Your task to perform on an android device: Go to CNN.com Image 0: 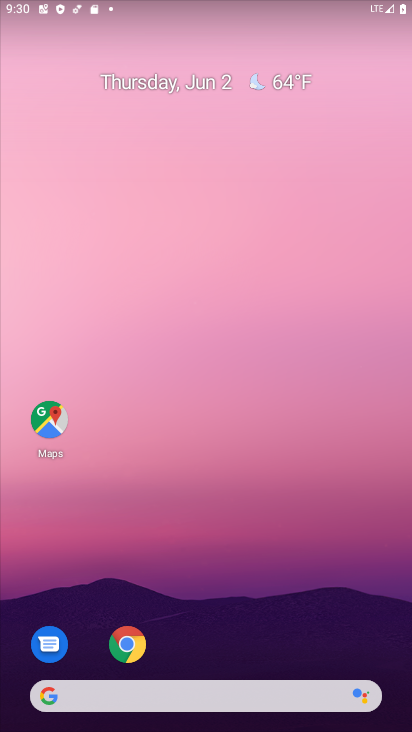
Step 0: press home button
Your task to perform on an android device: Go to CNN.com Image 1: 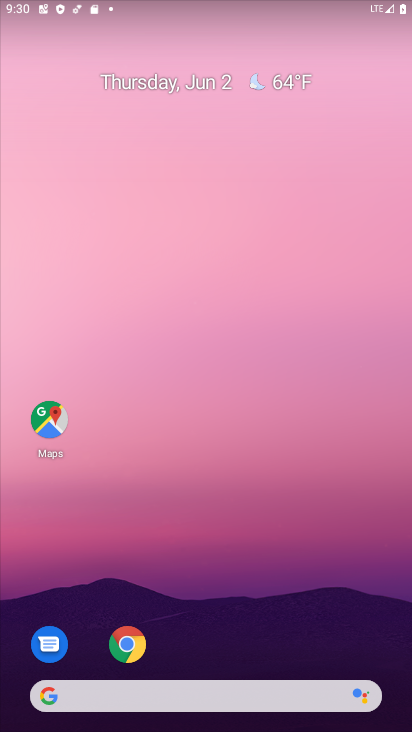
Step 1: drag from (383, 719) to (3, 712)
Your task to perform on an android device: Go to CNN.com Image 2: 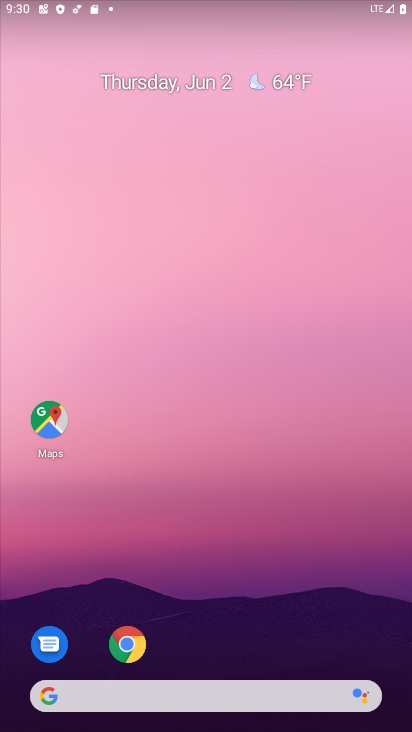
Step 2: click (133, 651)
Your task to perform on an android device: Go to CNN.com Image 3: 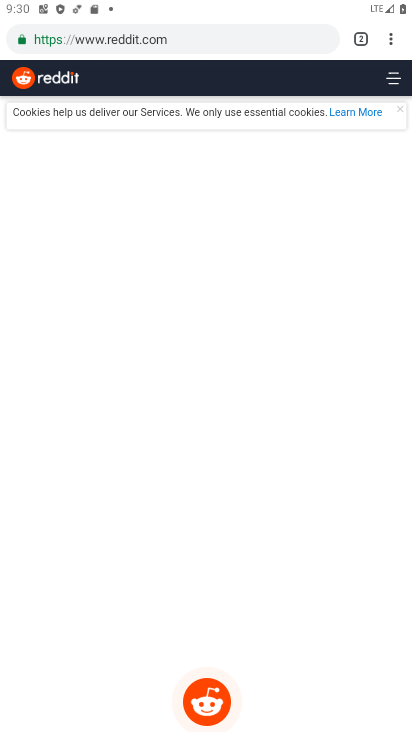
Step 3: click (200, 40)
Your task to perform on an android device: Go to CNN.com Image 4: 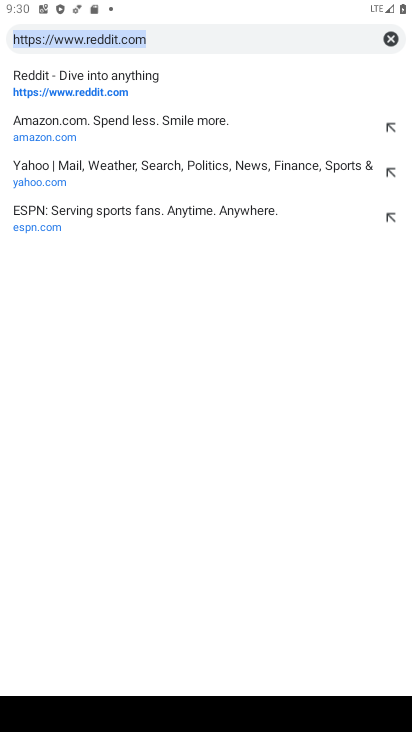
Step 4: type " CNN.com"
Your task to perform on an android device: Go to CNN.com Image 5: 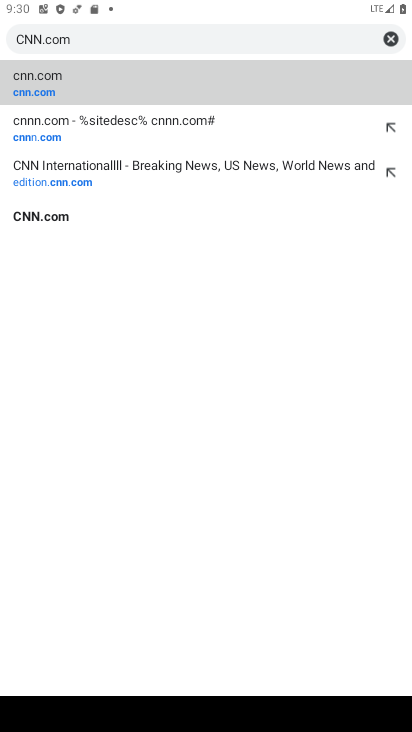
Step 5: click (184, 66)
Your task to perform on an android device: Go to CNN.com Image 6: 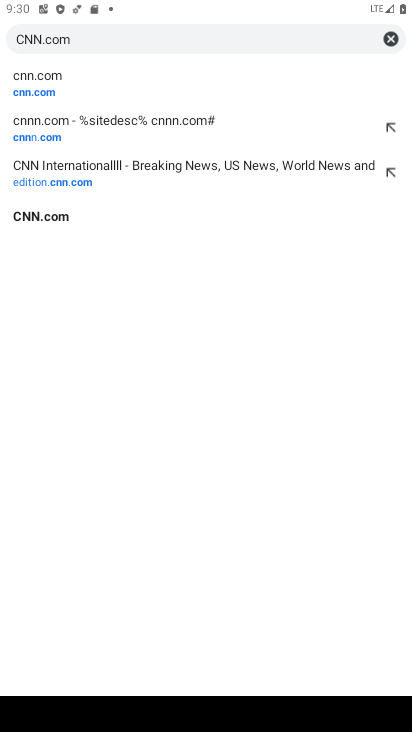
Step 6: click (281, 79)
Your task to perform on an android device: Go to CNN.com Image 7: 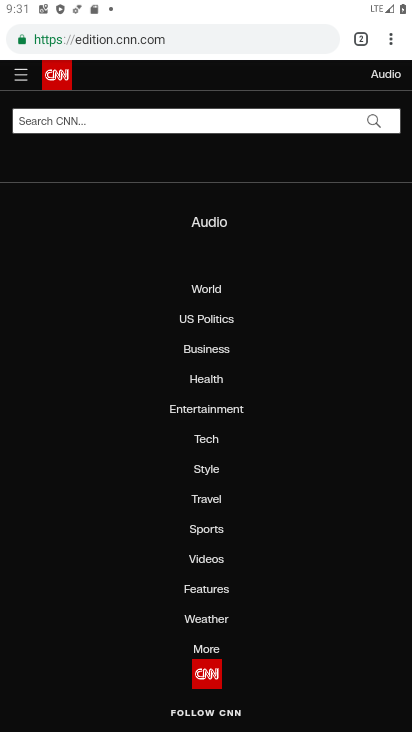
Step 7: task complete